Your task to perform on an android device: Go to network settings Image 0: 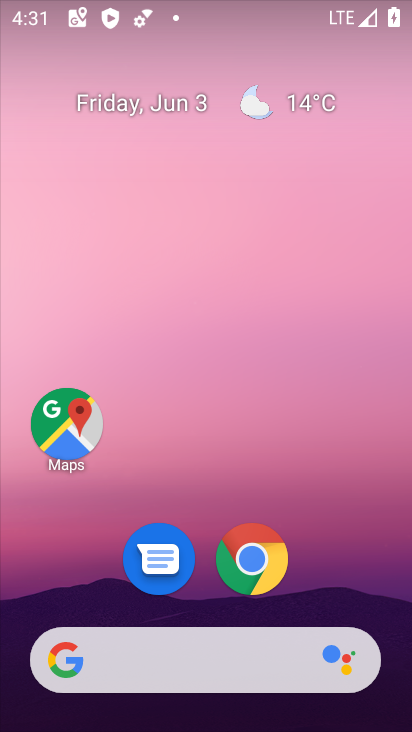
Step 0: press home button
Your task to perform on an android device: Go to network settings Image 1: 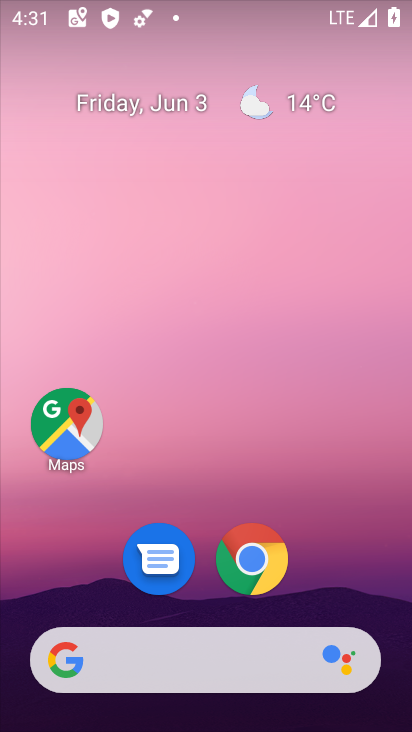
Step 1: drag from (312, 568) to (363, 101)
Your task to perform on an android device: Go to network settings Image 2: 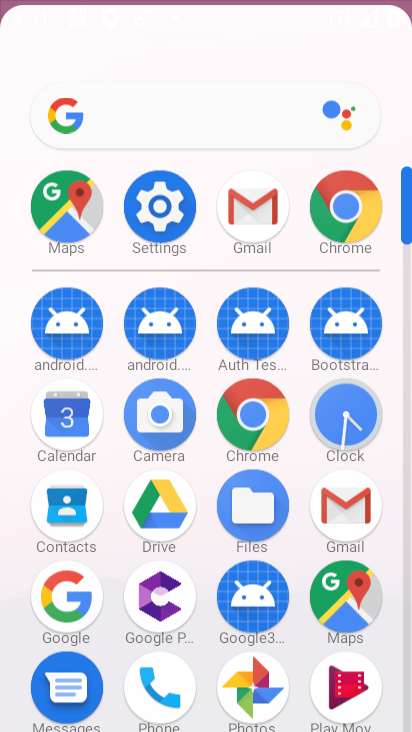
Step 2: click (156, 202)
Your task to perform on an android device: Go to network settings Image 3: 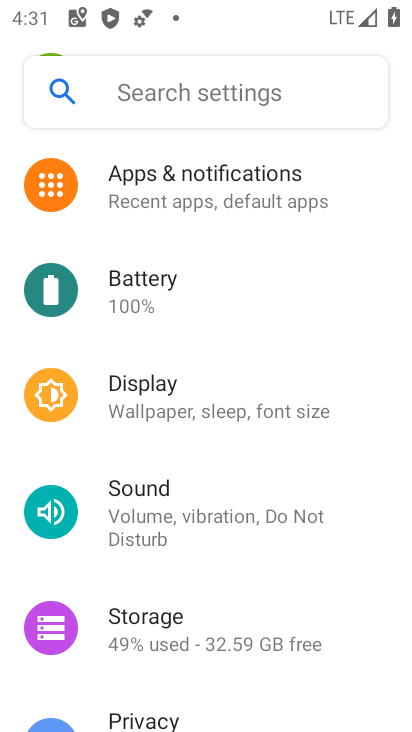
Step 3: drag from (283, 238) to (234, 605)
Your task to perform on an android device: Go to network settings Image 4: 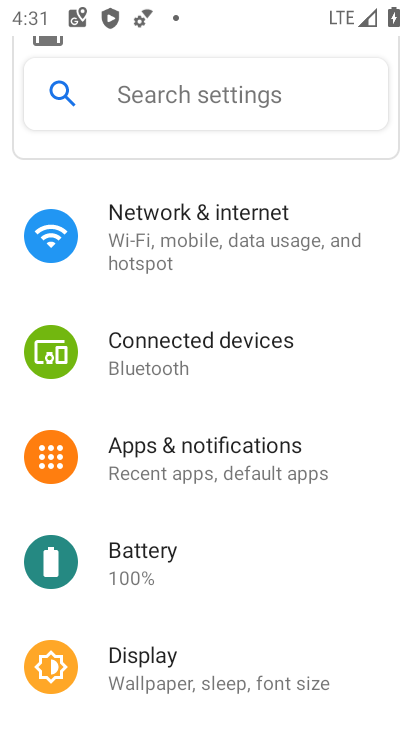
Step 4: click (212, 218)
Your task to perform on an android device: Go to network settings Image 5: 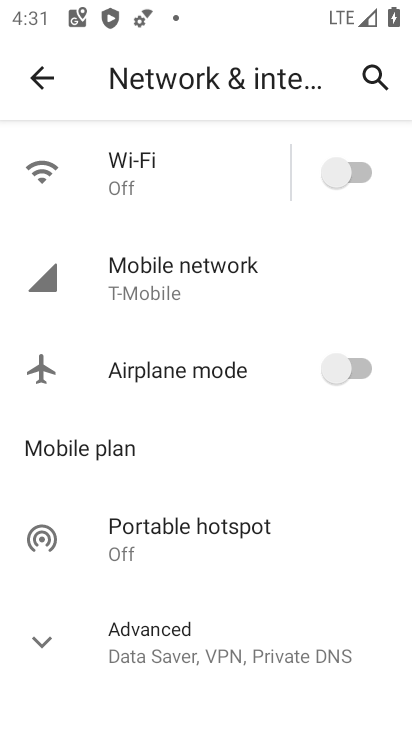
Step 5: task complete